Your task to perform on an android device: Open calendar and show me the third week of next month Image 0: 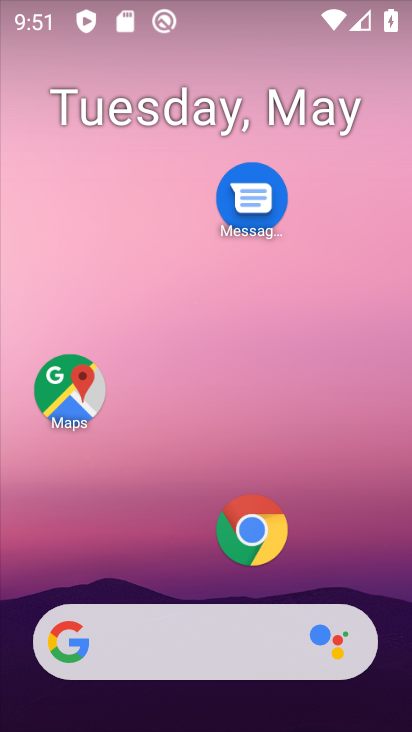
Step 0: drag from (147, 556) to (191, 12)
Your task to perform on an android device: Open calendar and show me the third week of next month Image 1: 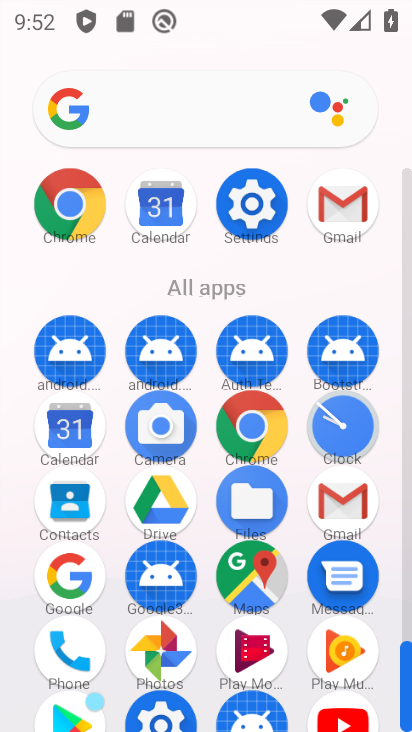
Step 1: click (156, 227)
Your task to perform on an android device: Open calendar and show me the third week of next month Image 2: 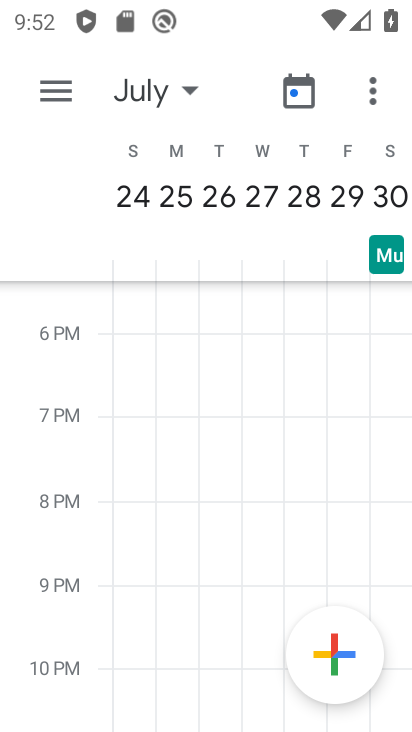
Step 2: click (166, 98)
Your task to perform on an android device: Open calendar and show me the third week of next month Image 3: 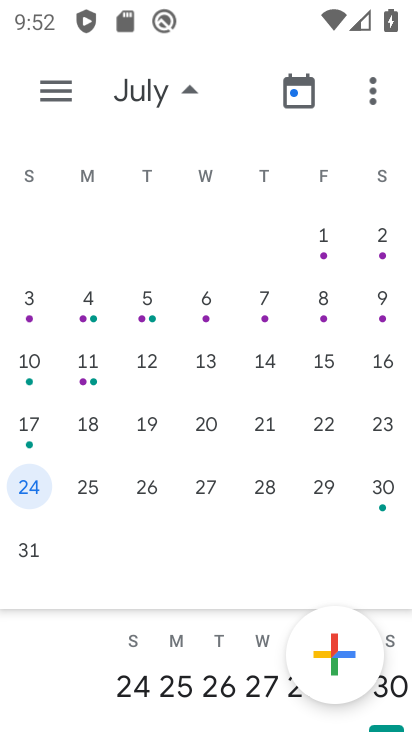
Step 3: click (28, 429)
Your task to perform on an android device: Open calendar and show me the third week of next month Image 4: 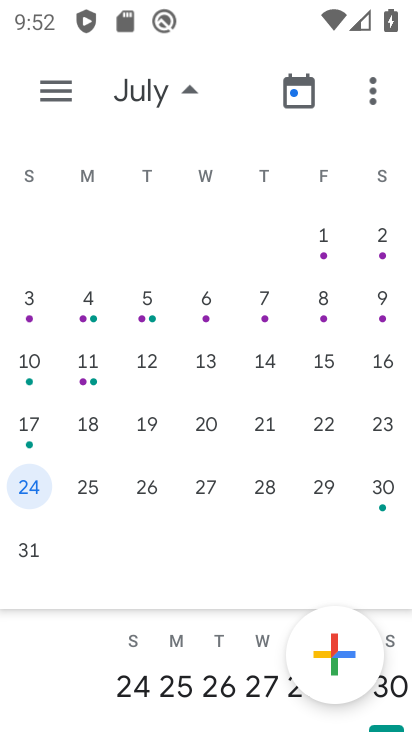
Step 4: click (37, 418)
Your task to perform on an android device: Open calendar and show me the third week of next month Image 5: 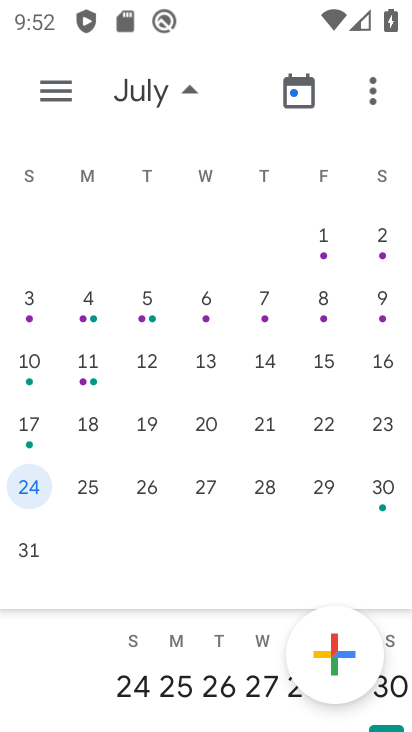
Step 5: click (37, 418)
Your task to perform on an android device: Open calendar and show me the third week of next month Image 6: 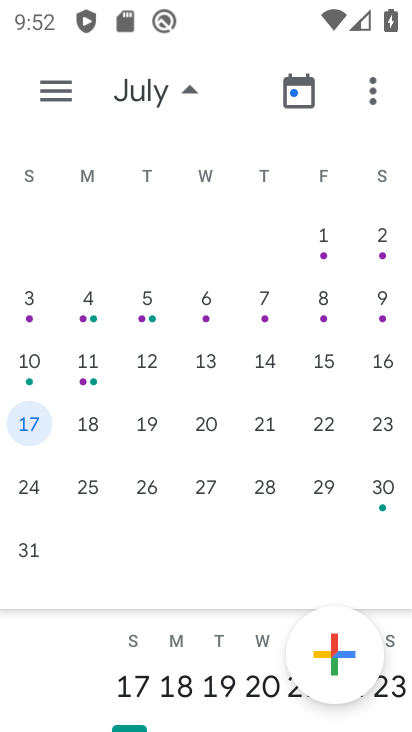
Step 6: task complete